Your task to perform on an android device: turn off notifications settings in the gmail app Image 0: 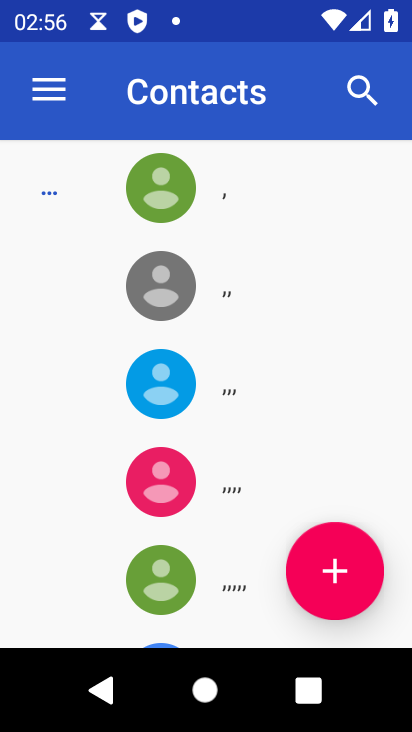
Step 0: press back button
Your task to perform on an android device: turn off notifications settings in the gmail app Image 1: 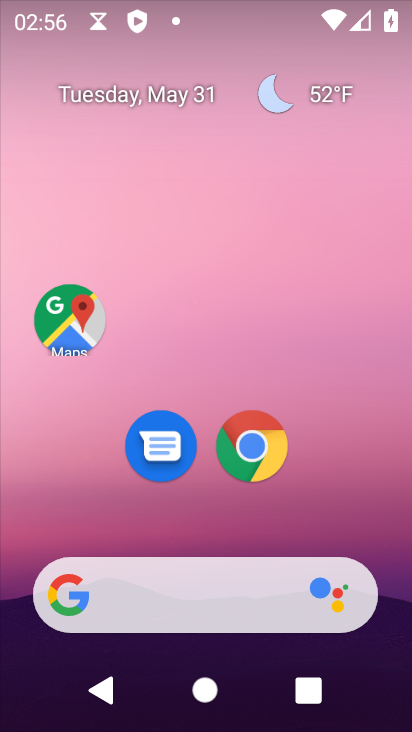
Step 1: drag from (334, 520) to (336, 116)
Your task to perform on an android device: turn off notifications settings in the gmail app Image 2: 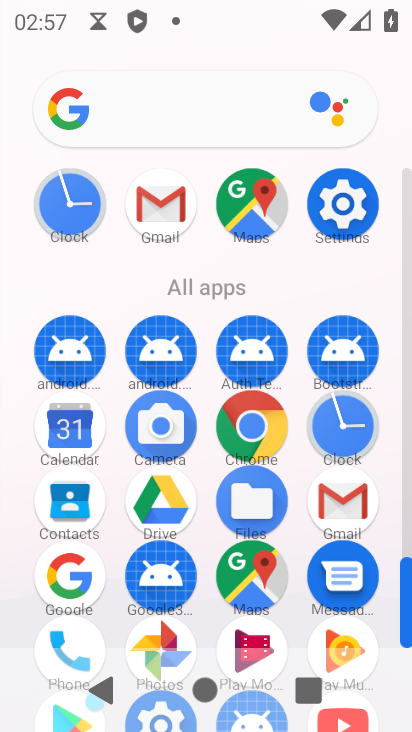
Step 2: click (163, 202)
Your task to perform on an android device: turn off notifications settings in the gmail app Image 3: 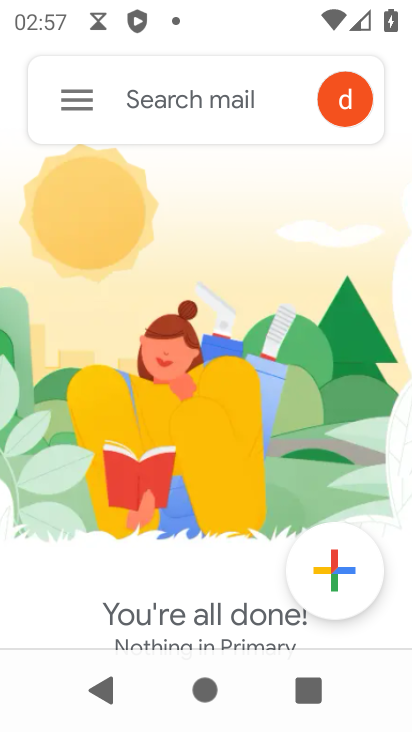
Step 3: click (84, 102)
Your task to perform on an android device: turn off notifications settings in the gmail app Image 4: 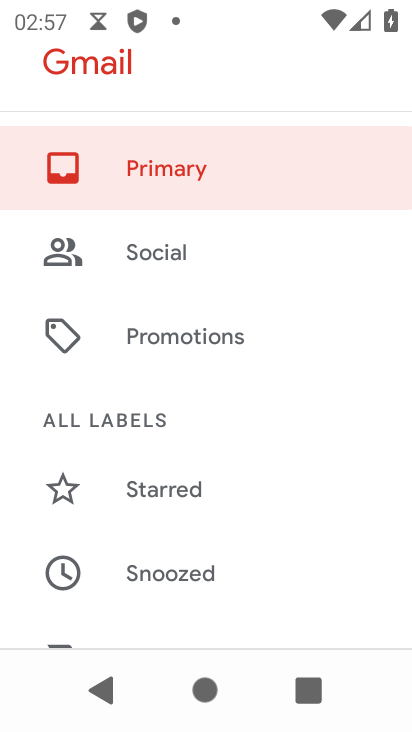
Step 4: drag from (166, 466) to (197, 372)
Your task to perform on an android device: turn off notifications settings in the gmail app Image 5: 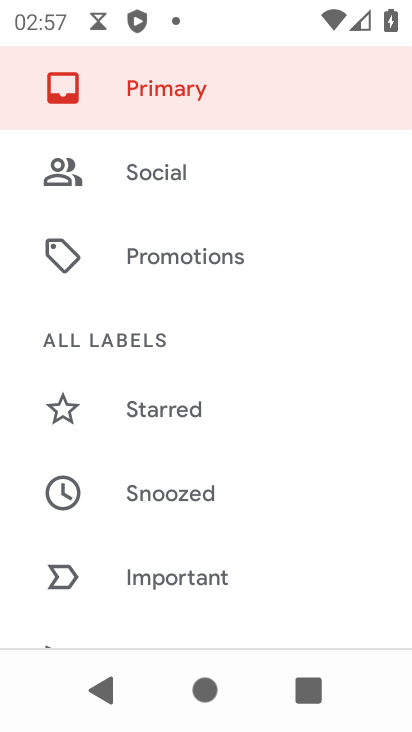
Step 5: drag from (160, 521) to (227, 421)
Your task to perform on an android device: turn off notifications settings in the gmail app Image 6: 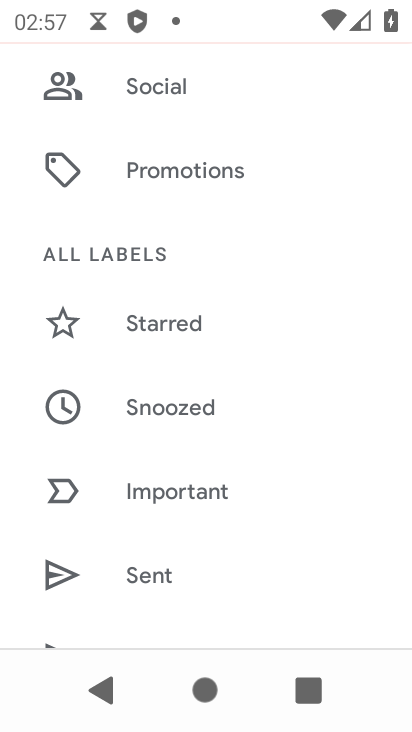
Step 6: drag from (154, 521) to (242, 417)
Your task to perform on an android device: turn off notifications settings in the gmail app Image 7: 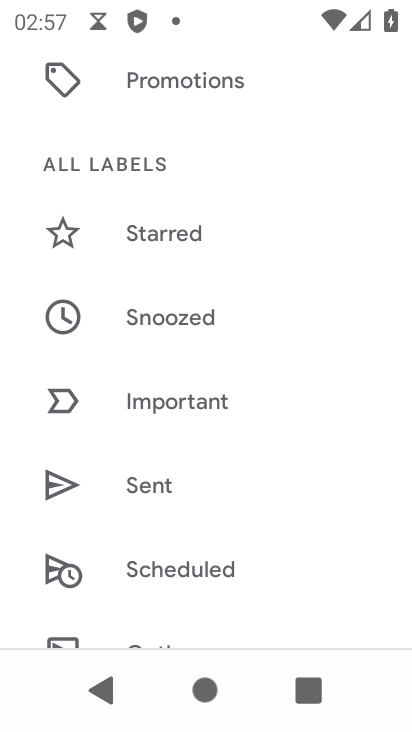
Step 7: drag from (146, 521) to (232, 426)
Your task to perform on an android device: turn off notifications settings in the gmail app Image 8: 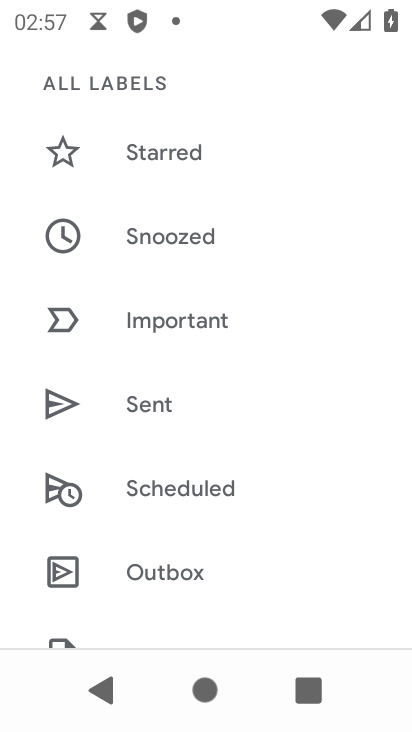
Step 8: drag from (135, 528) to (246, 411)
Your task to perform on an android device: turn off notifications settings in the gmail app Image 9: 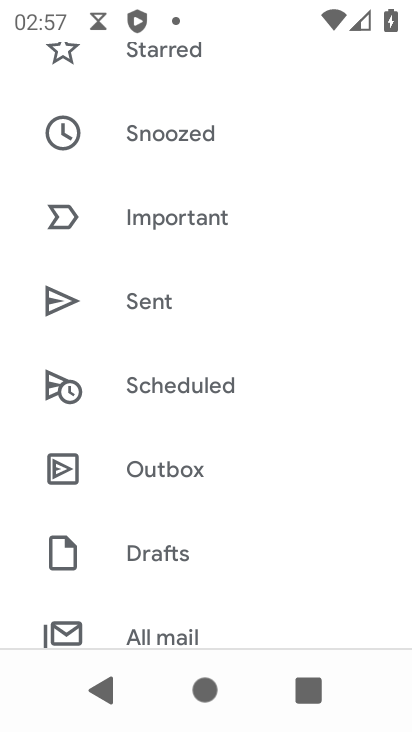
Step 9: drag from (150, 513) to (251, 405)
Your task to perform on an android device: turn off notifications settings in the gmail app Image 10: 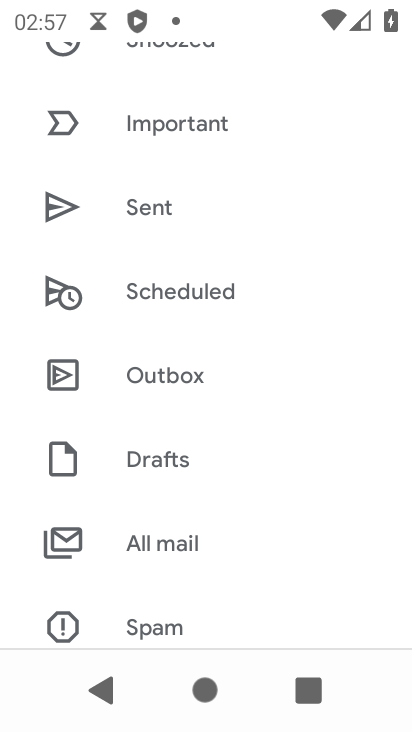
Step 10: drag from (154, 502) to (238, 413)
Your task to perform on an android device: turn off notifications settings in the gmail app Image 11: 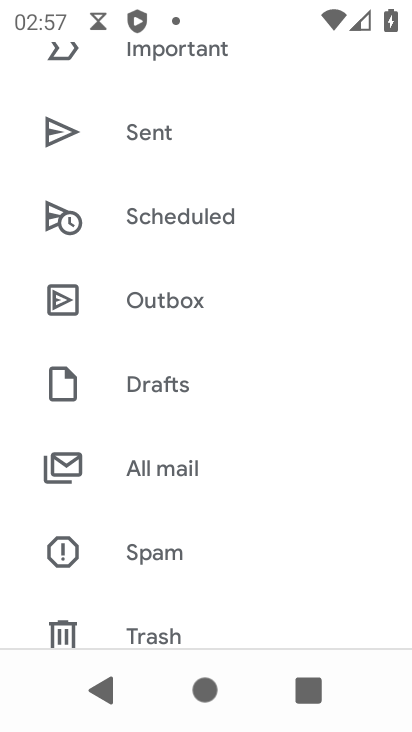
Step 11: drag from (148, 521) to (168, 386)
Your task to perform on an android device: turn off notifications settings in the gmail app Image 12: 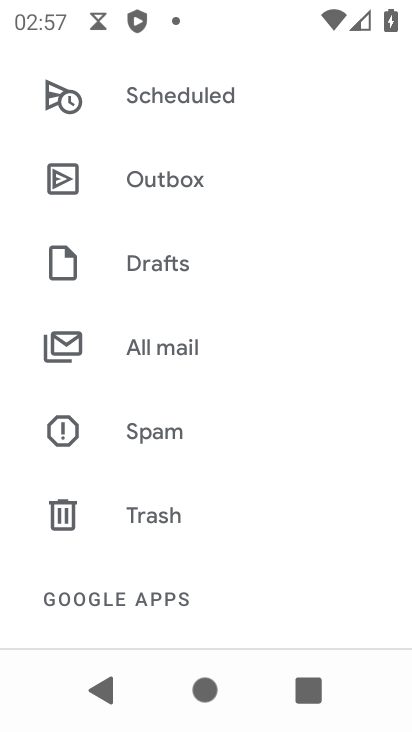
Step 12: drag from (142, 477) to (206, 385)
Your task to perform on an android device: turn off notifications settings in the gmail app Image 13: 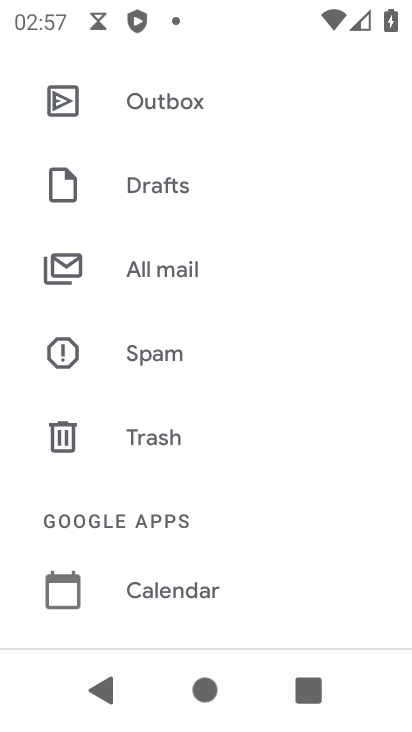
Step 13: drag from (146, 480) to (231, 370)
Your task to perform on an android device: turn off notifications settings in the gmail app Image 14: 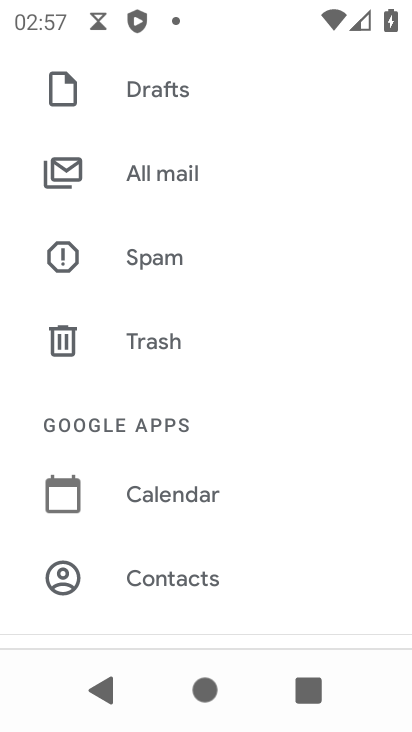
Step 14: drag from (136, 522) to (237, 407)
Your task to perform on an android device: turn off notifications settings in the gmail app Image 15: 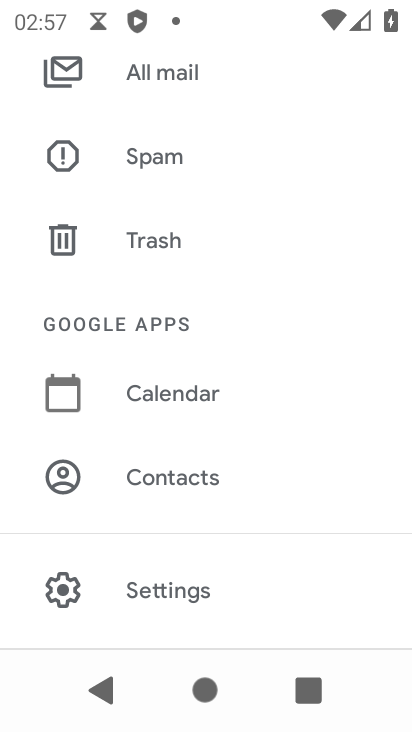
Step 15: click (174, 584)
Your task to perform on an android device: turn off notifications settings in the gmail app Image 16: 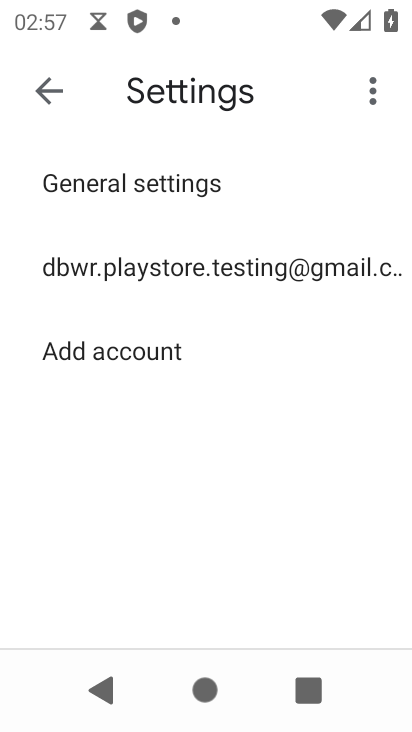
Step 16: click (143, 276)
Your task to perform on an android device: turn off notifications settings in the gmail app Image 17: 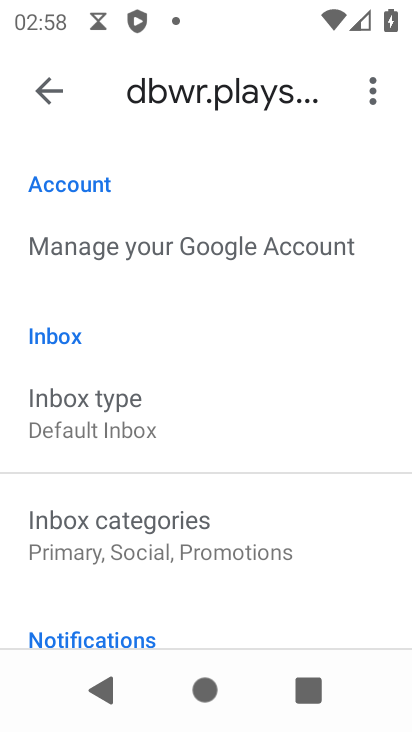
Step 17: drag from (117, 491) to (216, 381)
Your task to perform on an android device: turn off notifications settings in the gmail app Image 18: 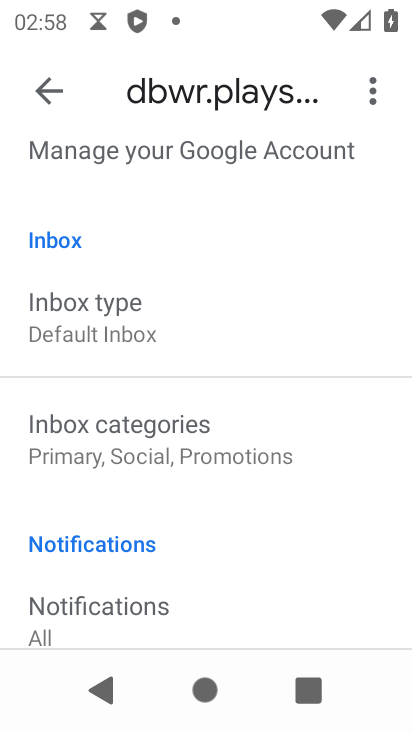
Step 18: drag from (167, 573) to (234, 490)
Your task to perform on an android device: turn off notifications settings in the gmail app Image 19: 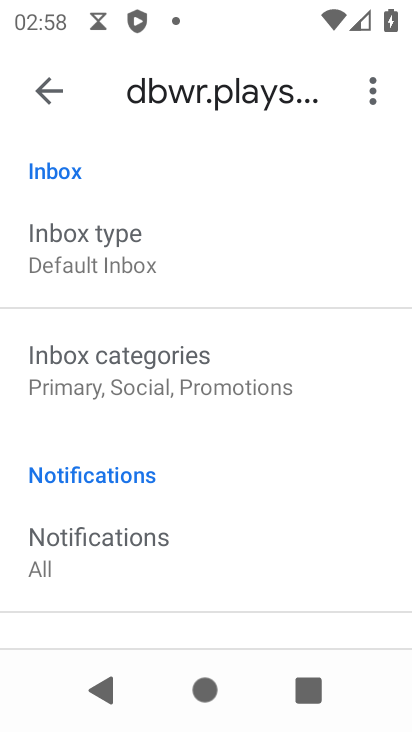
Step 19: drag from (140, 588) to (233, 485)
Your task to perform on an android device: turn off notifications settings in the gmail app Image 20: 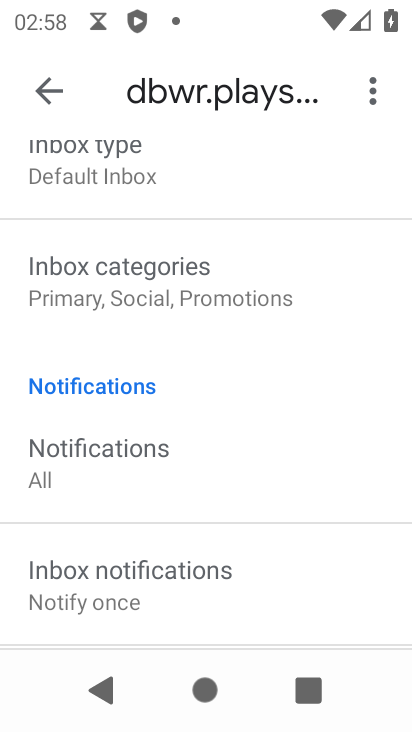
Step 20: drag from (123, 539) to (173, 446)
Your task to perform on an android device: turn off notifications settings in the gmail app Image 21: 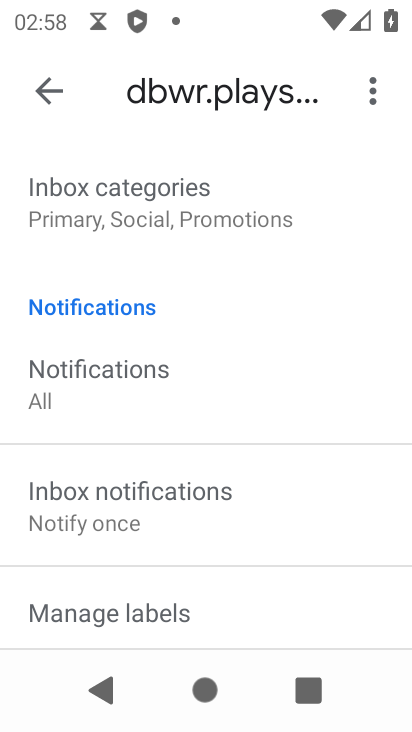
Step 21: drag from (107, 549) to (183, 429)
Your task to perform on an android device: turn off notifications settings in the gmail app Image 22: 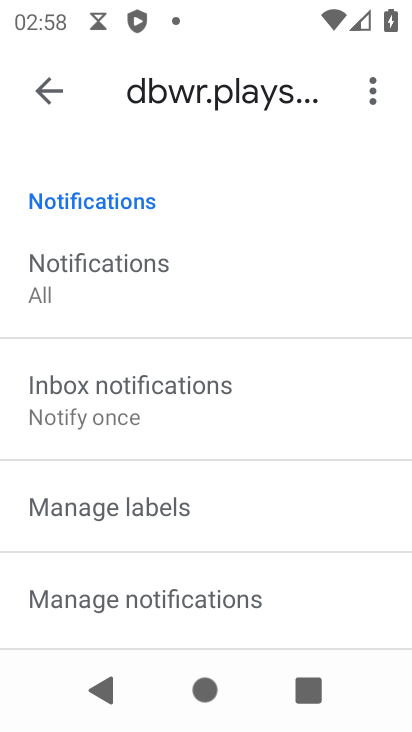
Step 22: drag from (117, 553) to (201, 446)
Your task to perform on an android device: turn off notifications settings in the gmail app Image 23: 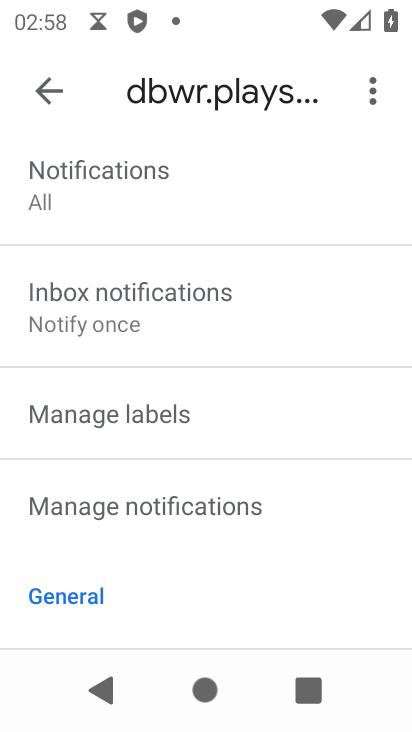
Step 23: click (170, 504)
Your task to perform on an android device: turn off notifications settings in the gmail app Image 24: 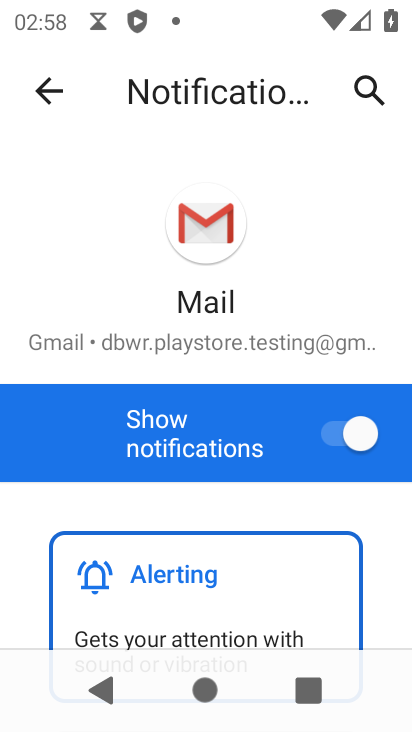
Step 24: click (324, 434)
Your task to perform on an android device: turn off notifications settings in the gmail app Image 25: 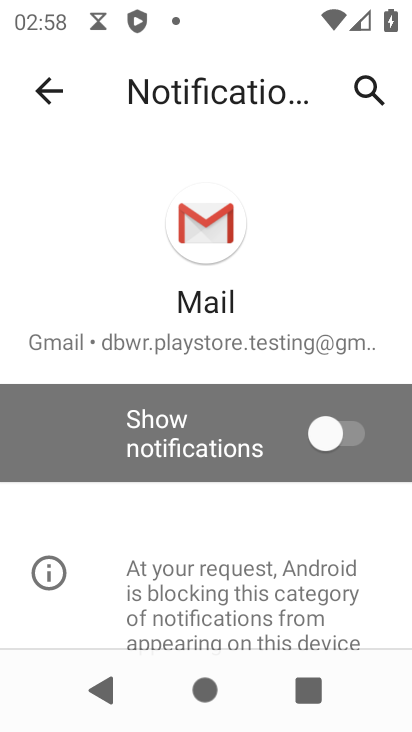
Step 25: task complete